Your task to perform on an android device: turn smart compose on in the gmail app Image 0: 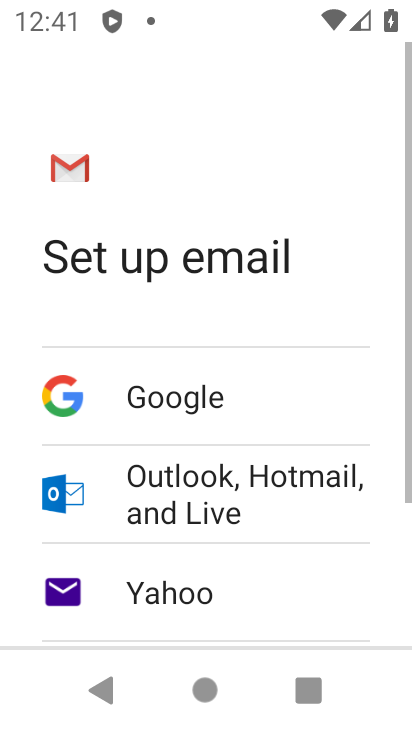
Step 0: press home button
Your task to perform on an android device: turn smart compose on in the gmail app Image 1: 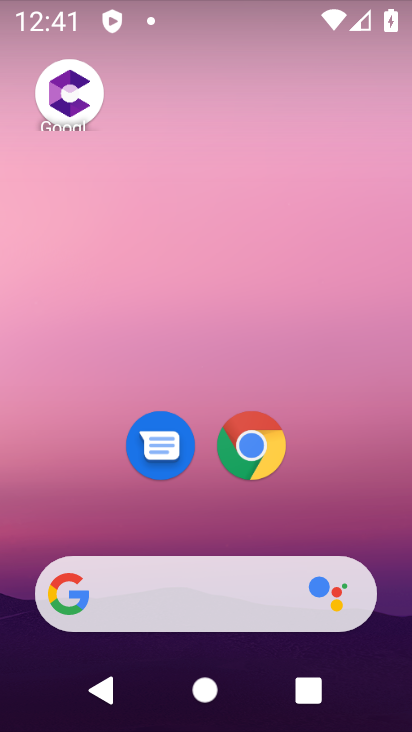
Step 1: drag from (402, 677) to (328, 122)
Your task to perform on an android device: turn smart compose on in the gmail app Image 2: 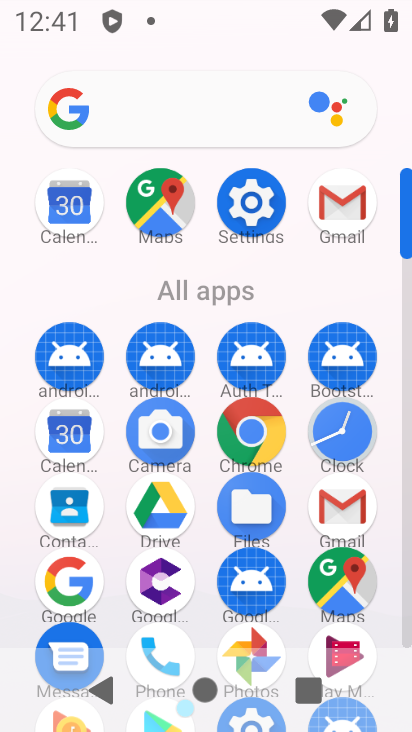
Step 2: click (339, 508)
Your task to perform on an android device: turn smart compose on in the gmail app Image 3: 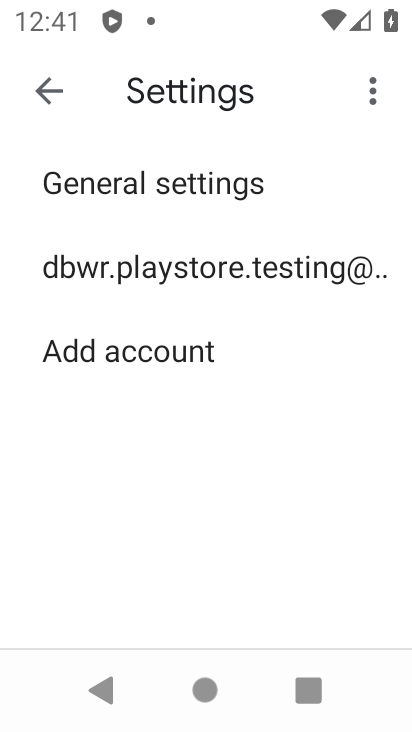
Step 3: click (185, 271)
Your task to perform on an android device: turn smart compose on in the gmail app Image 4: 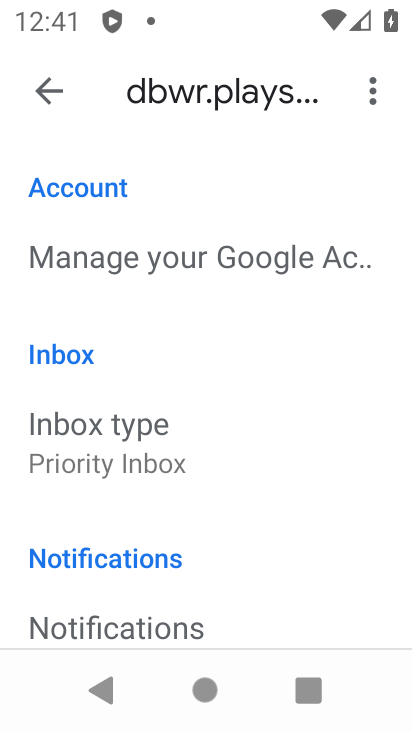
Step 4: task complete